Your task to perform on an android device: View the shopping cart on target. Search for razer blackwidow on target, select the first entry, and add it to the cart. Image 0: 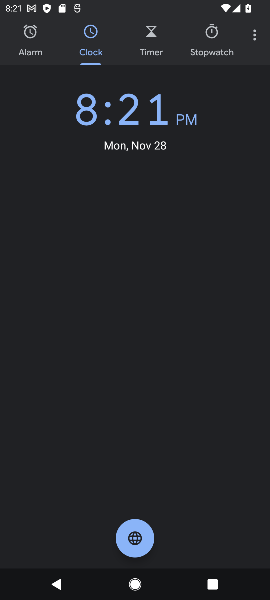
Step 0: press home button
Your task to perform on an android device: View the shopping cart on target. Search for razer blackwidow on target, select the first entry, and add it to the cart. Image 1: 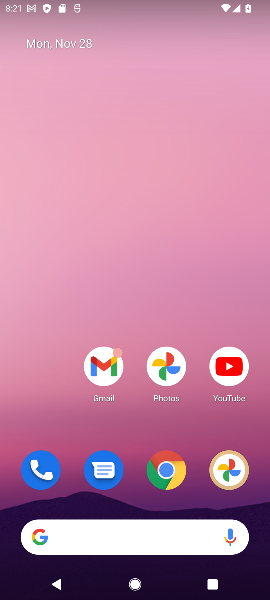
Step 1: drag from (122, 448) to (120, 176)
Your task to perform on an android device: View the shopping cart on target. Search for razer blackwidow on target, select the first entry, and add it to the cart. Image 2: 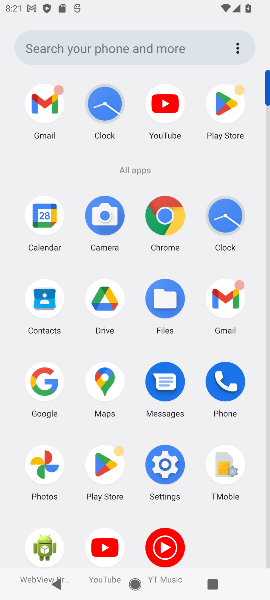
Step 2: click (54, 395)
Your task to perform on an android device: View the shopping cart on target. Search for razer blackwidow on target, select the first entry, and add it to the cart. Image 3: 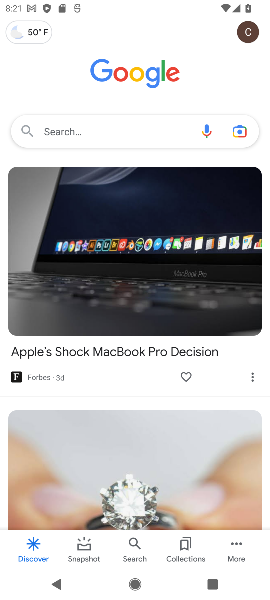
Step 3: click (85, 139)
Your task to perform on an android device: View the shopping cart on target. Search for razer blackwidow on target, select the first entry, and add it to the cart. Image 4: 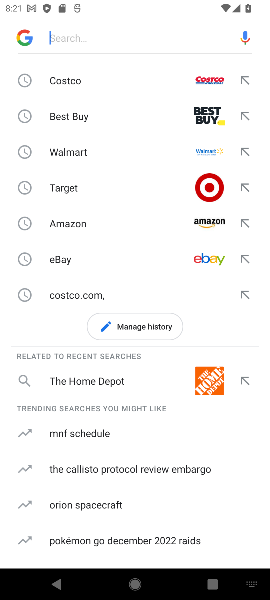
Step 4: click (88, 192)
Your task to perform on an android device: View the shopping cart on target. Search for razer blackwidow on target, select the first entry, and add it to the cart. Image 5: 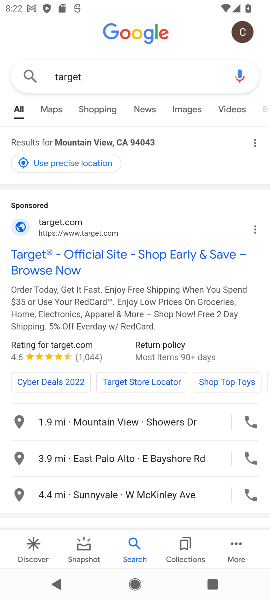
Step 5: drag from (179, 374) to (174, 262)
Your task to perform on an android device: View the shopping cart on target. Search for razer blackwidow on target, select the first entry, and add it to the cart. Image 6: 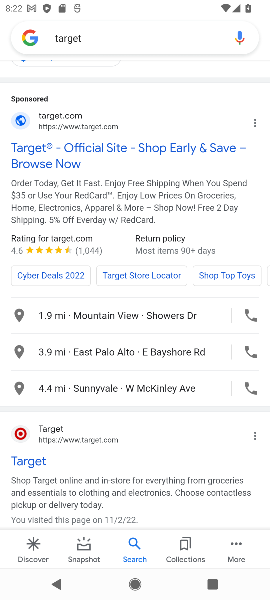
Step 6: click (20, 463)
Your task to perform on an android device: View the shopping cart on target. Search for razer blackwidow on target, select the first entry, and add it to the cart. Image 7: 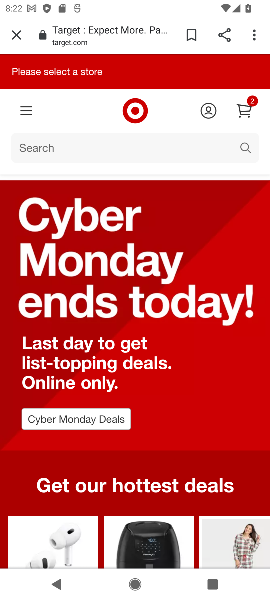
Step 7: click (248, 104)
Your task to perform on an android device: View the shopping cart on target. Search for razer blackwidow on target, select the first entry, and add it to the cart. Image 8: 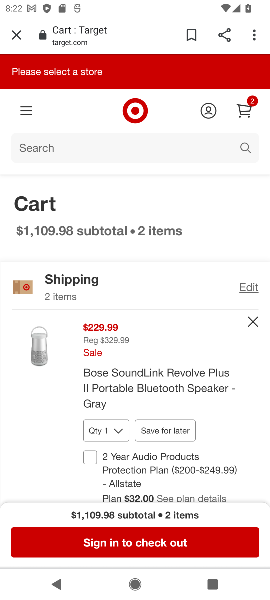
Step 8: click (107, 151)
Your task to perform on an android device: View the shopping cart on target. Search for razer blackwidow on target, select the first entry, and add it to the cart. Image 9: 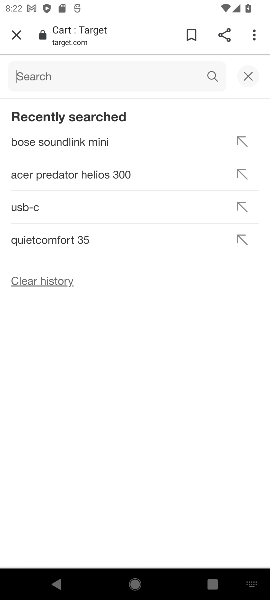
Step 9: type "razer blackwidow"
Your task to perform on an android device: View the shopping cart on target. Search for razer blackwidow on target, select the first entry, and add it to the cart. Image 10: 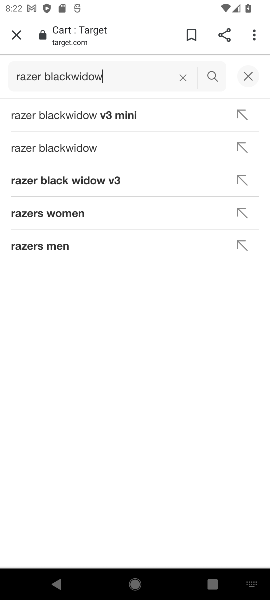
Step 10: click (69, 147)
Your task to perform on an android device: View the shopping cart on target. Search for razer blackwidow on target, select the first entry, and add it to the cart. Image 11: 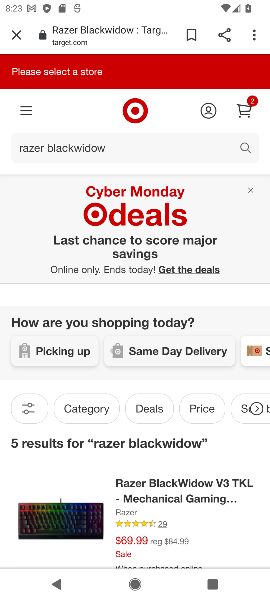
Step 11: drag from (174, 413) to (181, 328)
Your task to perform on an android device: View the shopping cart on target. Search for razer blackwidow on target, select the first entry, and add it to the cart. Image 12: 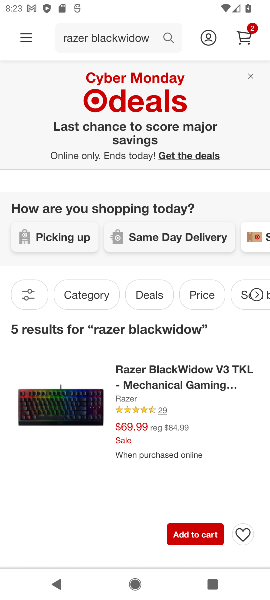
Step 12: click (191, 527)
Your task to perform on an android device: View the shopping cart on target. Search for razer blackwidow on target, select the first entry, and add it to the cart. Image 13: 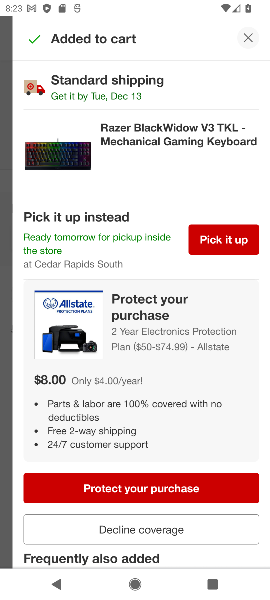
Step 13: click (150, 533)
Your task to perform on an android device: View the shopping cart on target. Search for razer blackwidow on target, select the first entry, and add it to the cart. Image 14: 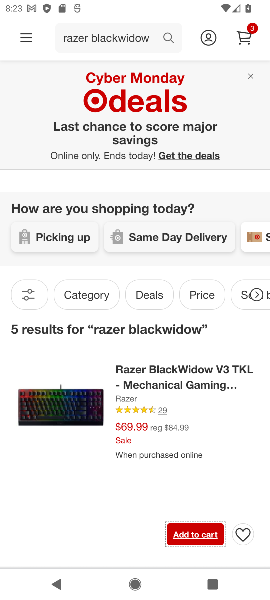
Step 14: task complete